Your task to perform on an android device: toggle improve location accuracy Image 0: 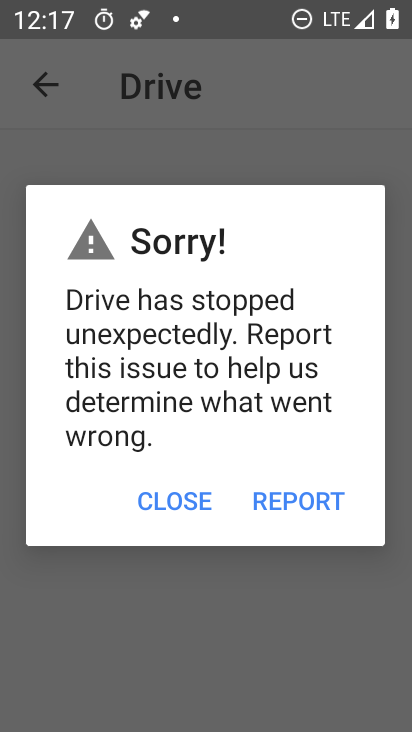
Step 0: press home button
Your task to perform on an android device: toggle improve location accuracy Image 1: 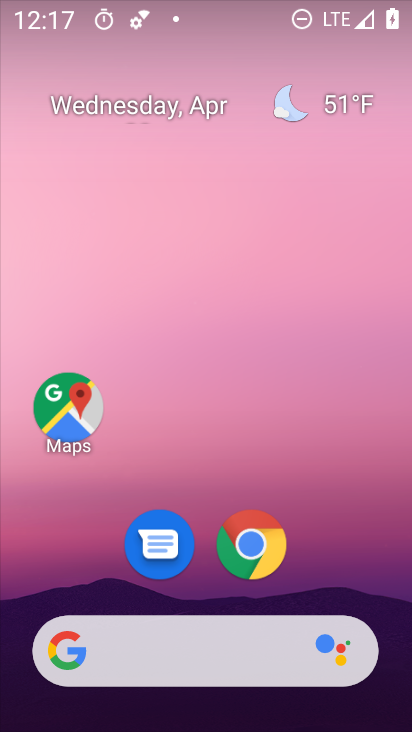
Step 1: drag from (337, 565) to (377, 89)
Your task to perform on an android device: toggle improve location accuracy Image 2: 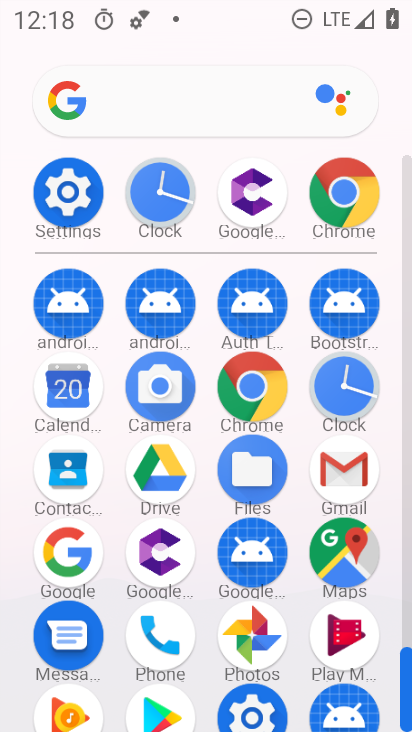
Step 2: click (52, 219)
Your task to perform on an android device: toggle improve location accuracy Image 3: 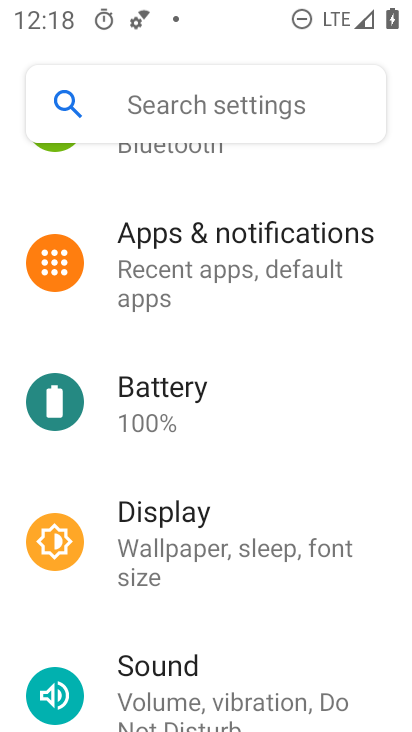
Step 3: drag from (369, 620) to (385, 437)
Your task to perform on an android device: toggle improve location accuracy Image 4: 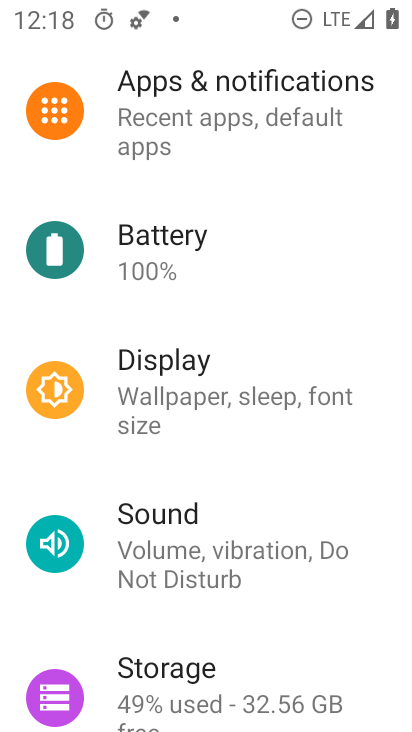
Step 4: drag from (372, 648) to (386, 352)
Your task to perform on an android device: toggle improve location accuracy Image 5: 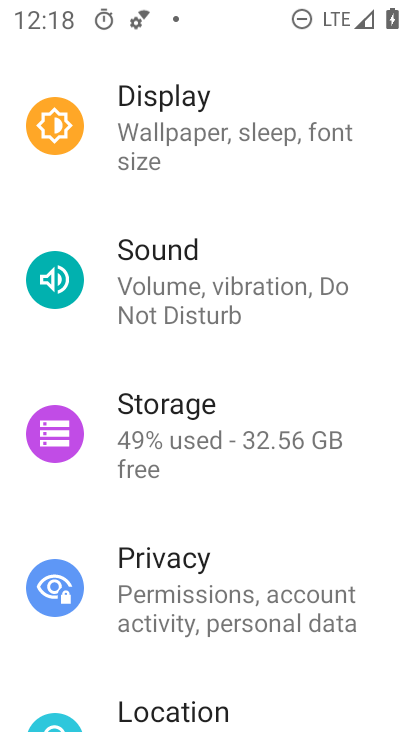
Step 5: drag from (377, 655) to (377, 376)
Your task to perform on an android device: toggle improve location accuracy Image 6: 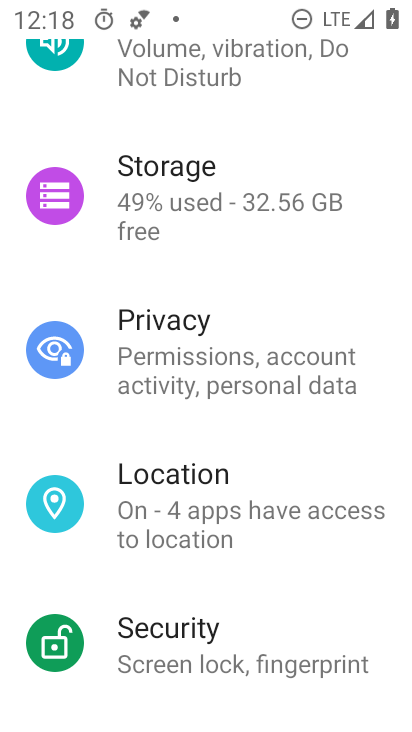
Step 6: drag from (379, 609) to (380, 380)
Your task to perform on an android device: toggle improve location accuracy Image 7: 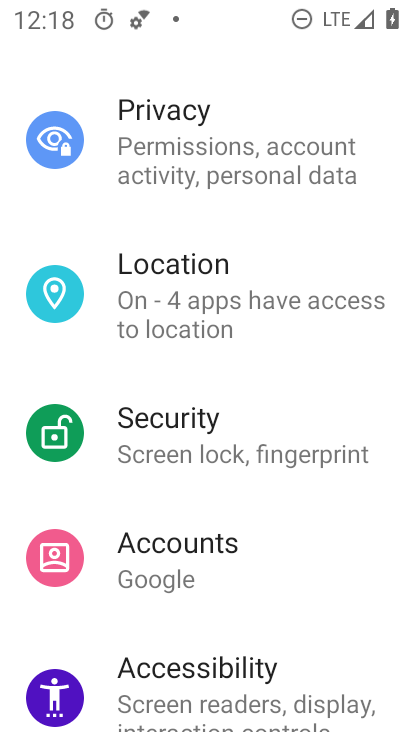
Step 7: drag from (367, 629) to (385, 433)
Your task to perform on an android device: toggle improve location accuracy Image 8: 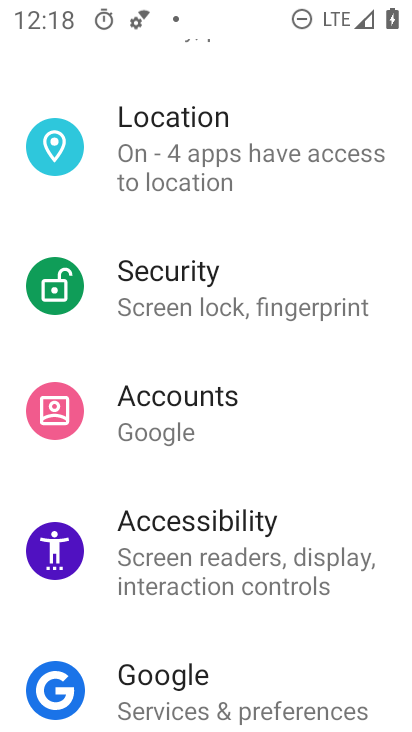
Step 8: click (223, 159)
Your task to perform on an android device: toggle improve location accuracy Image 9: 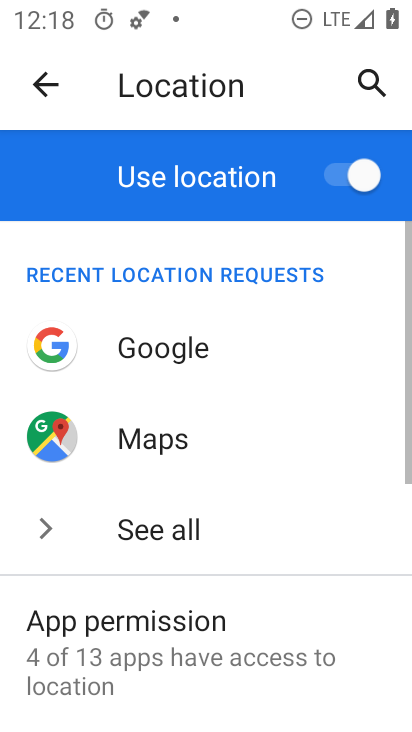
Step 9: drag from (308, 588) to (339, 343)
Your task to perform on an android device: toggle improve location accuracy Image 10: 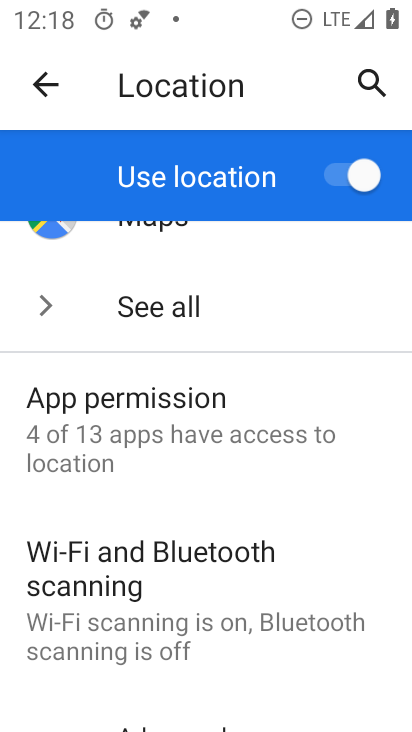
Step 10: drag from (359, 568) to (376, 395)
Your task to perform on an android device: toggle improve location accuracy Image 11: 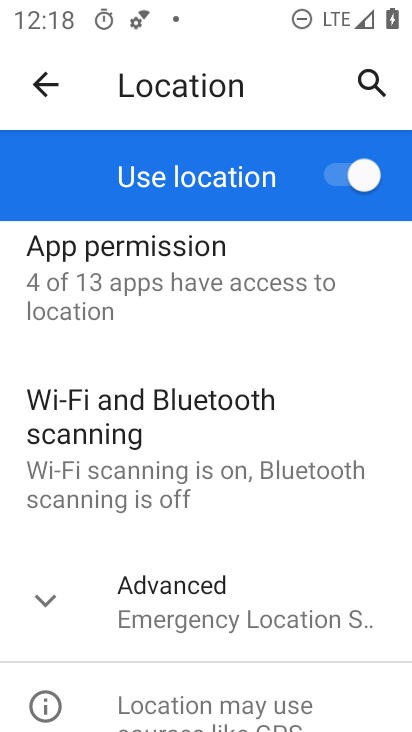
Step 11: click (263, 615)
Your task to perform on an android device: toggle improve location accuracy Image 12: 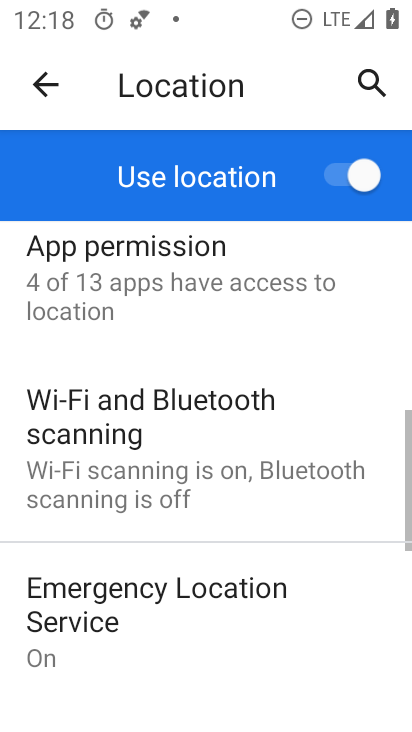
Step 12: drag from (320, 643) to (360, 492)
Your task to perform on an android device: toggle improve location accuracy Image 13: 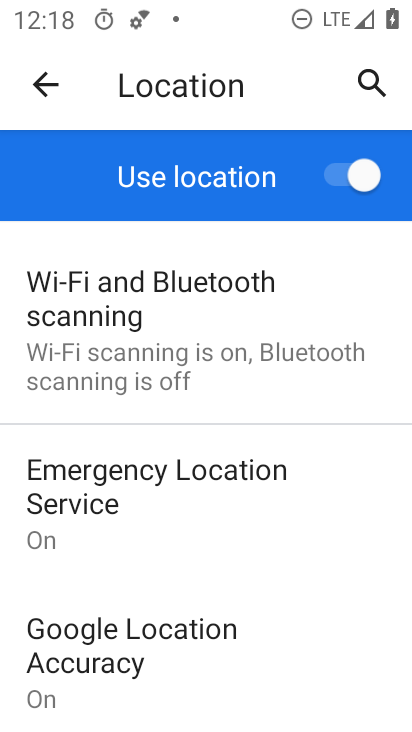
Step 13: drag from (342, 635) to (350, 448)
Your task to perform on an android device: toggle improve location accuracy Image 14: 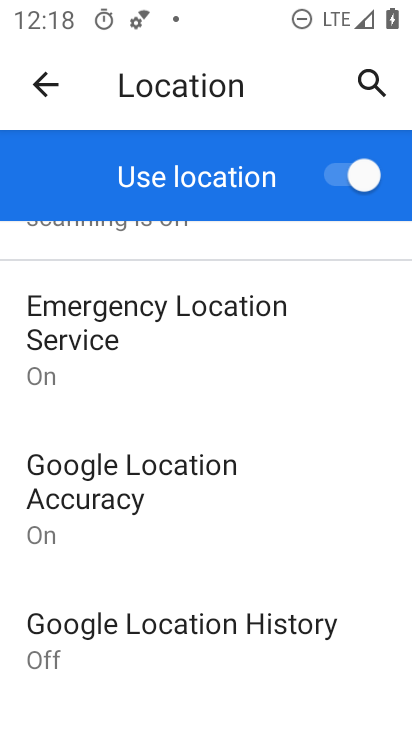
Step 14: click (116, 472)
Your task to perform on an android device: toggle improve location accuracy Image 15: 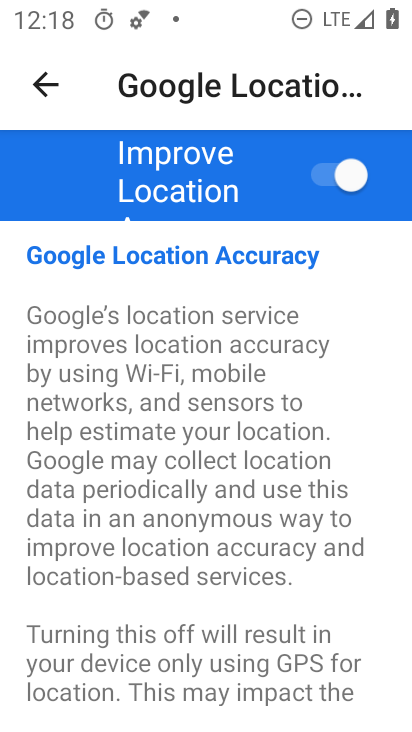
Step 15: click (364, 174)
Your task to perform on an android device: toggle improve location accuracy Image 16: 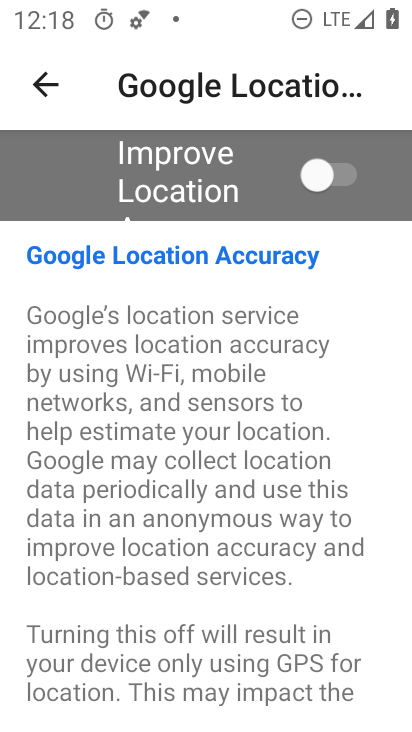
Step 16: task complete